Your task to perform on an android device: clear history in the chrome app Image 0: 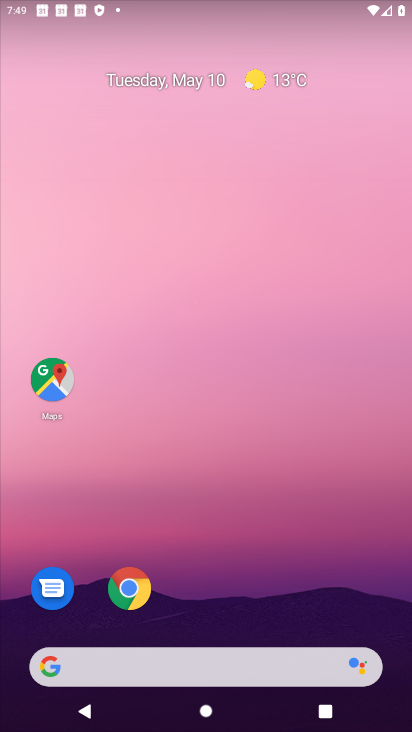
Step 0: click (144, 585)
Your task to perform on an android device: clear history in the chrome app Image 1: 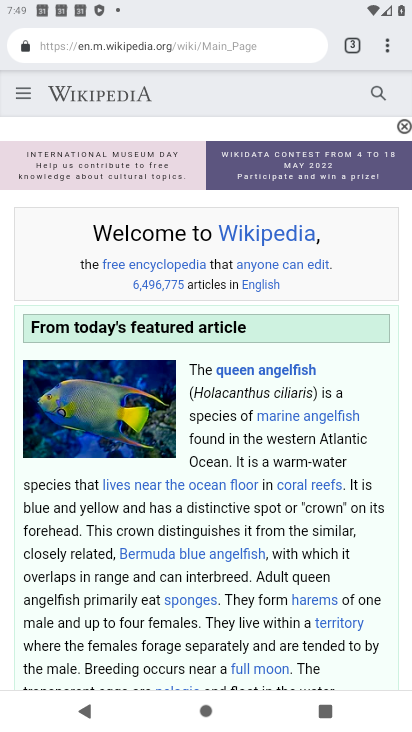
Step 1: click (383, 36)
Your task to perform on an android device: clear history in the chrome app Image 2: 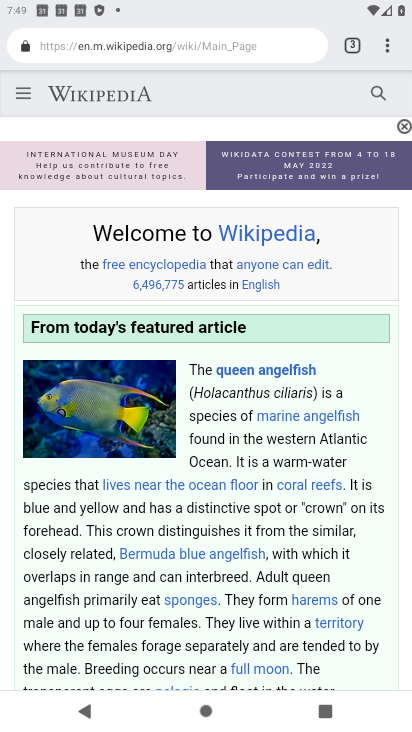
Step 2: click (380, 44)
Your task to perform on an android device: clear history in the chrome app Image 3: 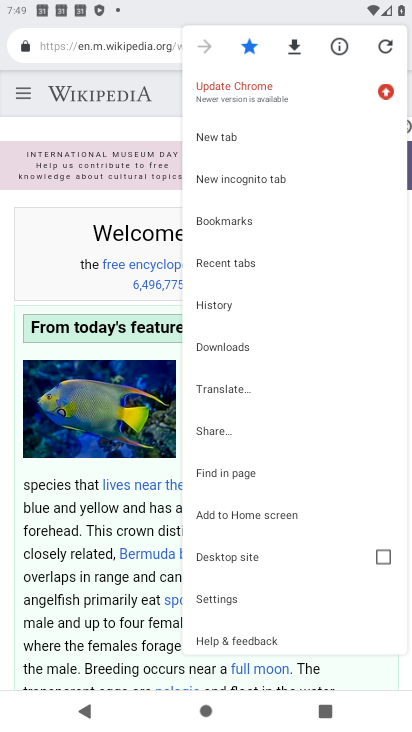
Step 3: click (257, 312)
Your task to perform on an android device: clear history in the chrome app Image 4: 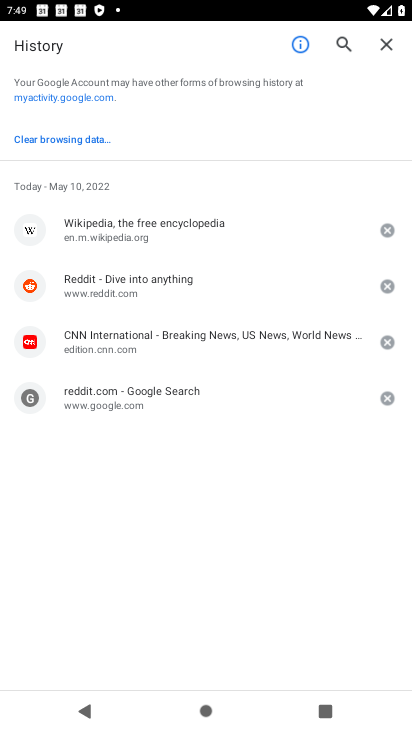
Step 4: click (78, 127)
Your task to perform on an android device: clear history in the chrome app Image 5: 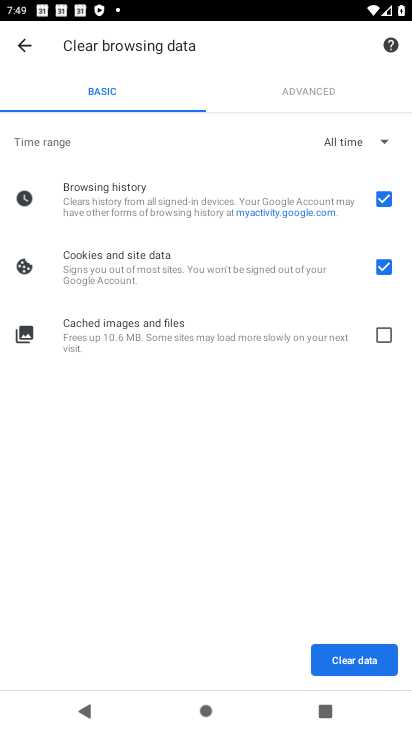
Step 5: click (368, 662)
Your task to perform on an android device: clear history in the chrome app Image 6: 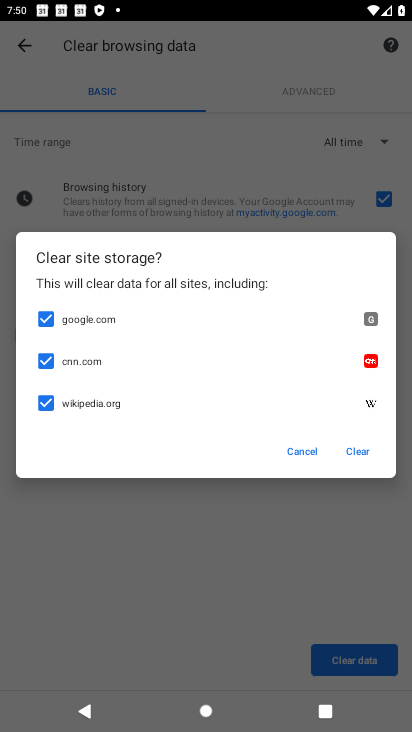
Step 6: click (346, 460)
Your task to perform on an android device: clear history in the chrome app Image 7: 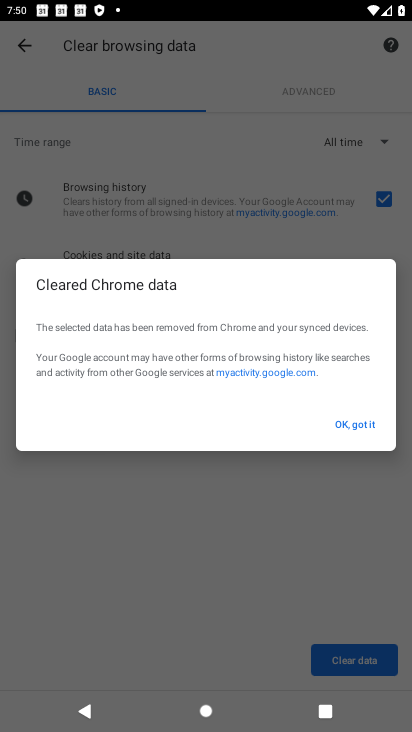
Step 7: click (350, 440)
Your task to perform on an android device: clear history in the chrome app Image 8: 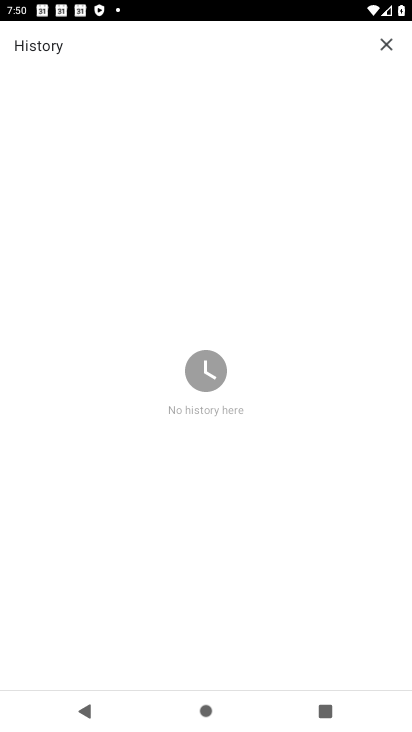
Step 8: task complete